Your task to perform on an android device: empty trash in google photos Image 0: 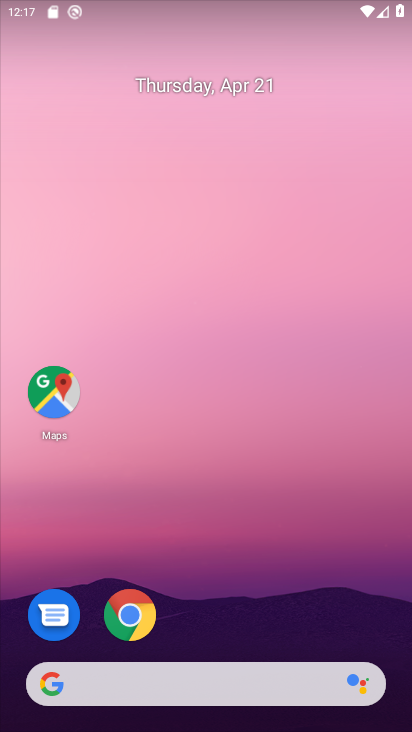
Step 0: drag from (231, 242) to (216, 85)
Your task to perform on an android device: empty trash in google photos Image 1: 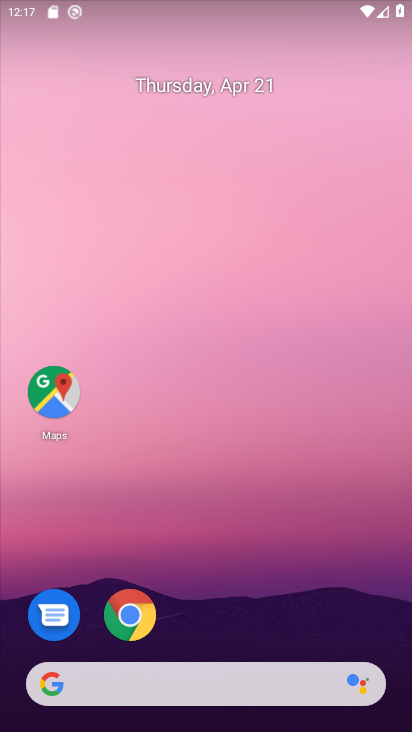
Step 1: drag from (230, 587) to (176, 11)
Your task to perform on an android device: empty trash in google photos Image 2: 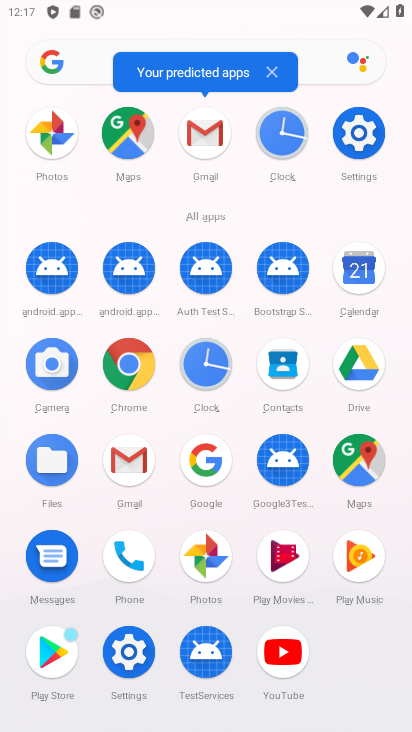
Step 2: click (36, 123)
Your task to perform on an android device: empty trash in google photos Image 3: 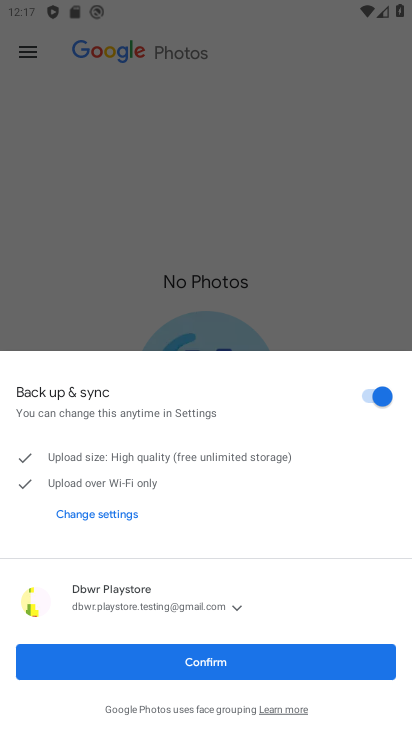
Step 3: click (199, 658)
Your task to perform on an android device: empty trash in google photos Image 4: 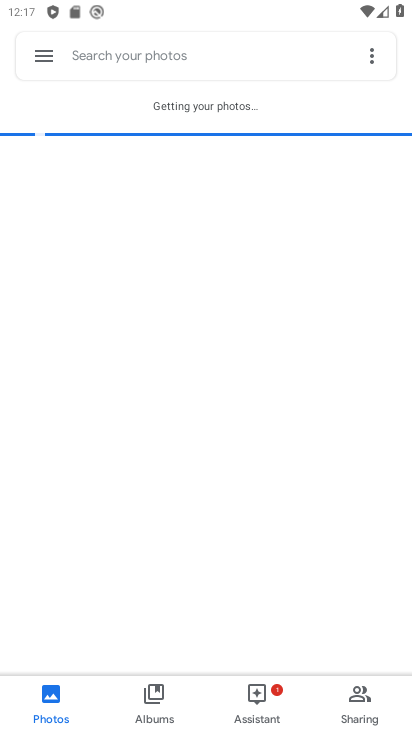
Step 4: click (48, 42)
Your task to perform on an android device: empty trash in google photos Image 5: 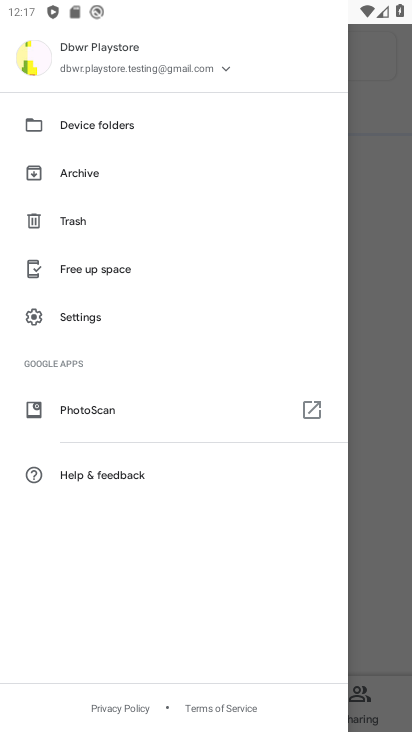
Step 5: click (74, 227)
Your task to perform on an android device: empty trash in google photos Image 6: 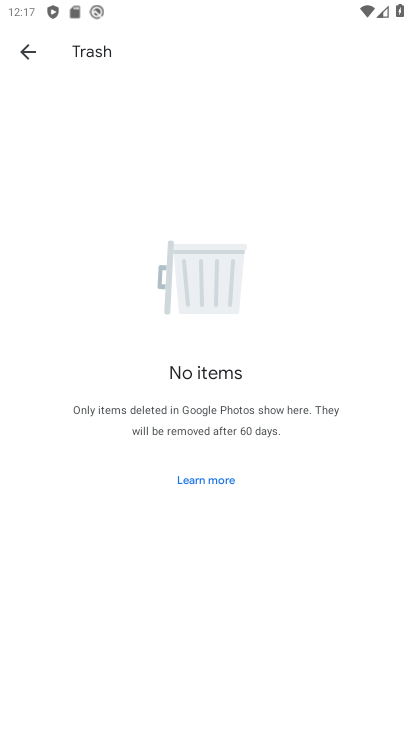
Step 6: task complete